Your task to perform on an android device: Go to CNN.com Image 0: 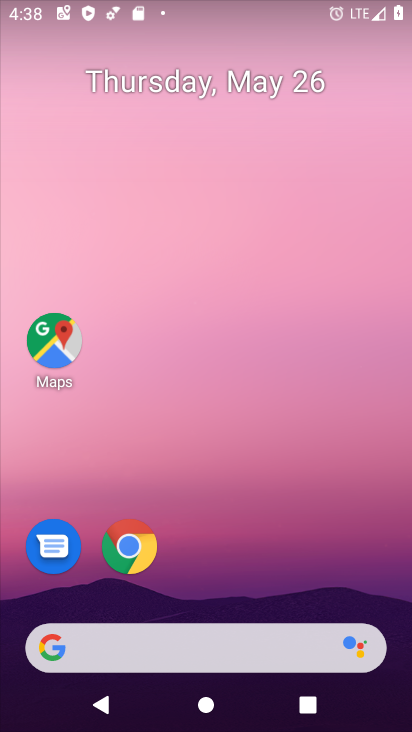
Step 0: click (129, 545)
Your task to perform on an android device: Go to CNN.com Image 1: 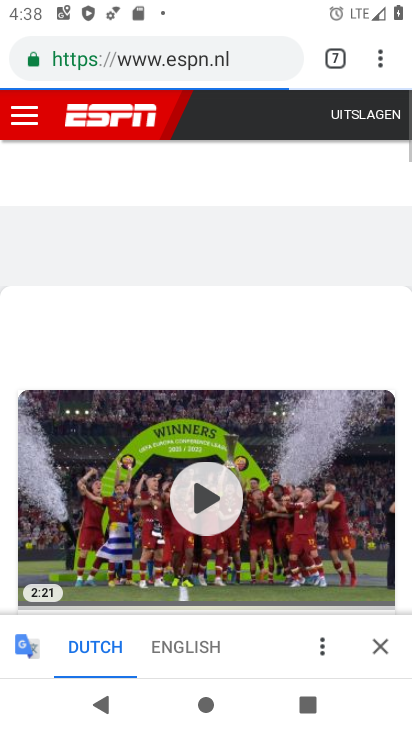
Step 1: click (336, 56)
Your task to perform on an android device: Go to CNN.com Image 2: 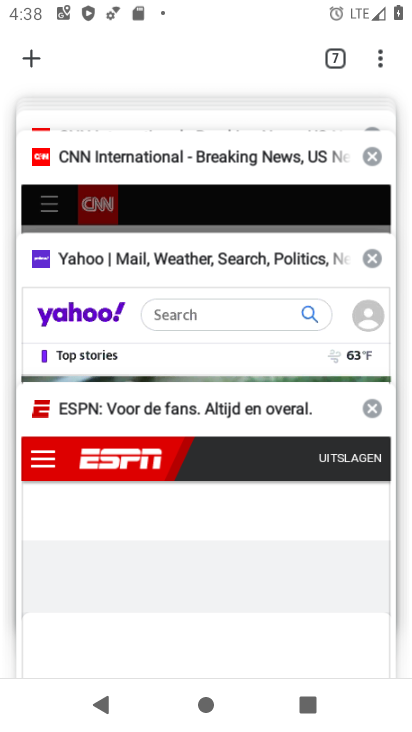
Step 2: click (87, 177)
Your task to perform on an android device: Go to CNN.com Image 3: 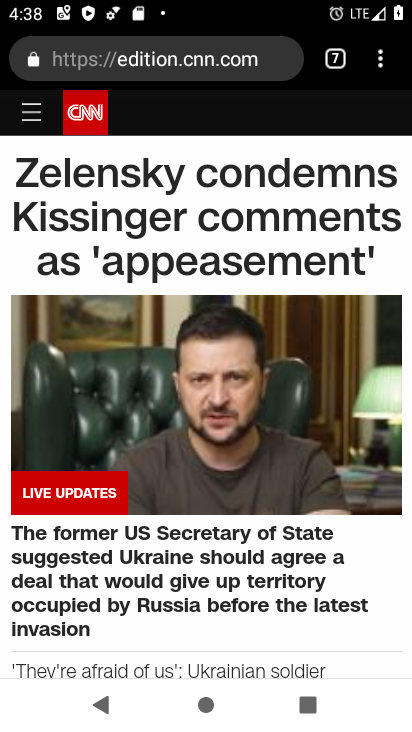
Step 3: task complete